Your task to perform on an android device: Clear the cart on target.com. Add macbook pro 15 inch to the cart on target.com Image 0: 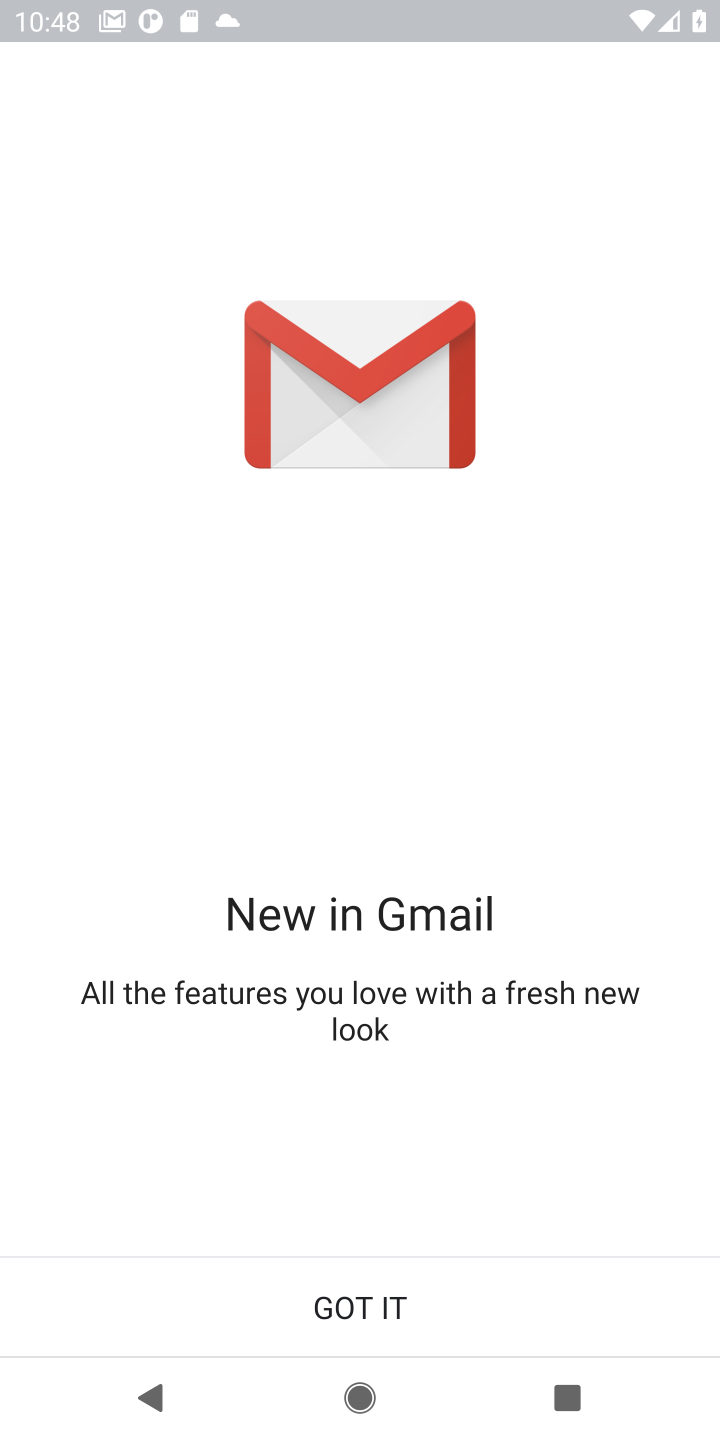
Step 0: press home button
Your task to perform on an android device: Clear the cart on target.com. Add macbook pro 15 inch to the cart on target.com Image 1: 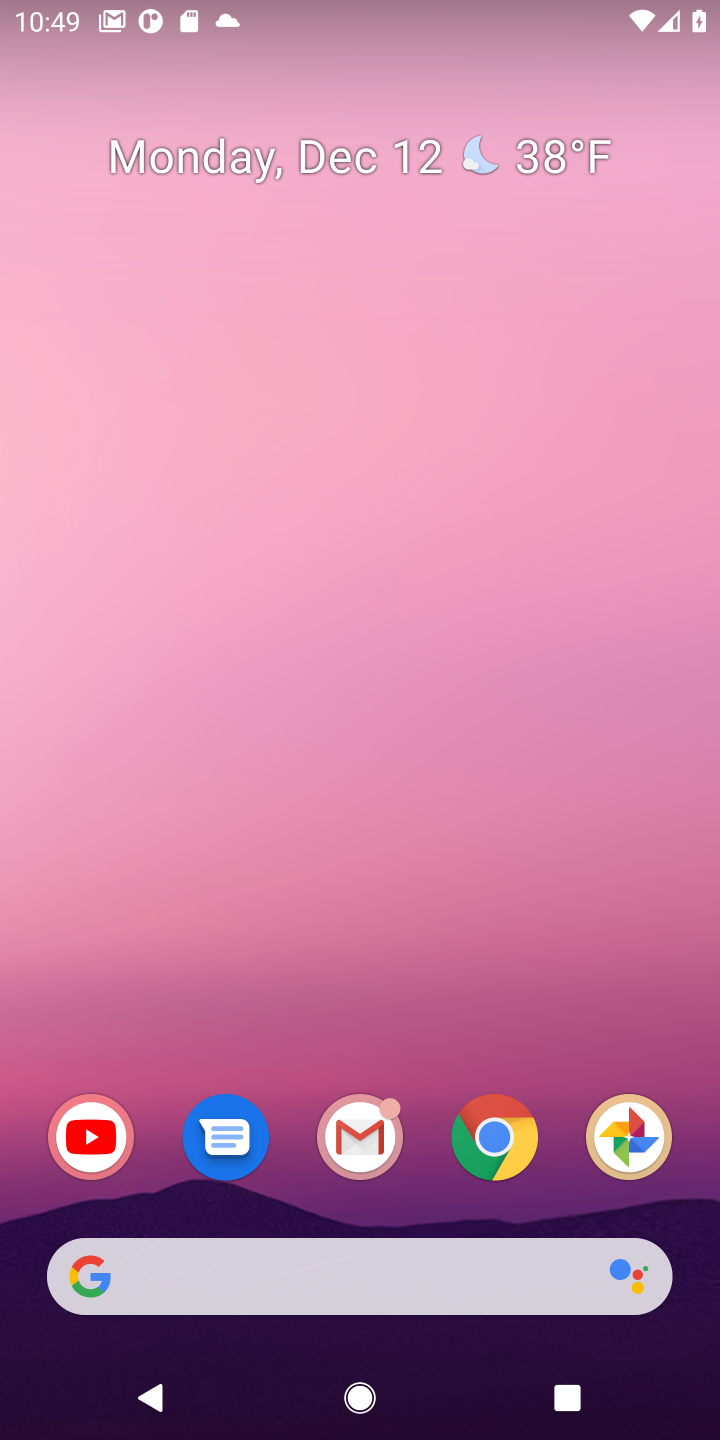
Step 1: click (316, 1256)
Your task to perform on an android device: Clear the cart on target.com. Add macbook pro 15 inch to the cart on target.com Image 2: 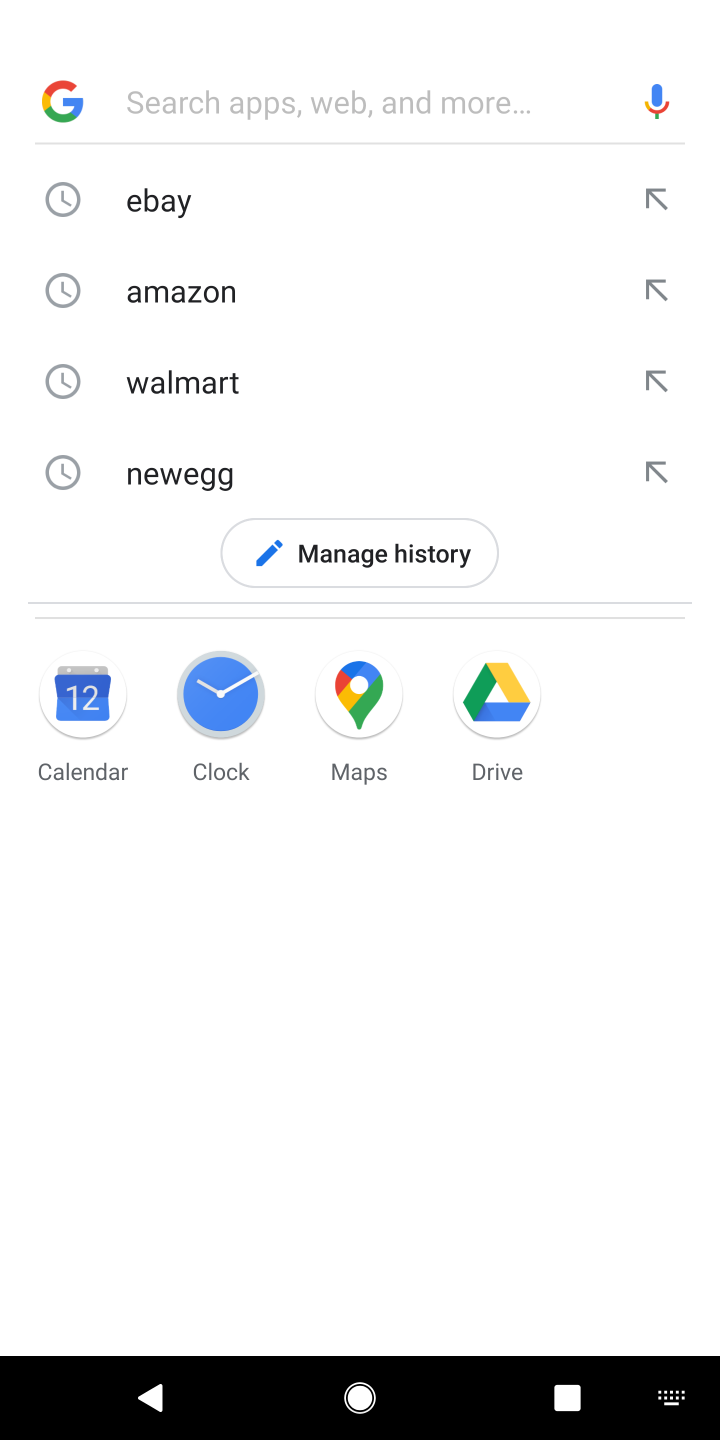
Step 2: type "target"
Your task to perform on an android device: Clear the cart on target.com. Add macbook pro 15 inch to the cart on target.com Image 3: 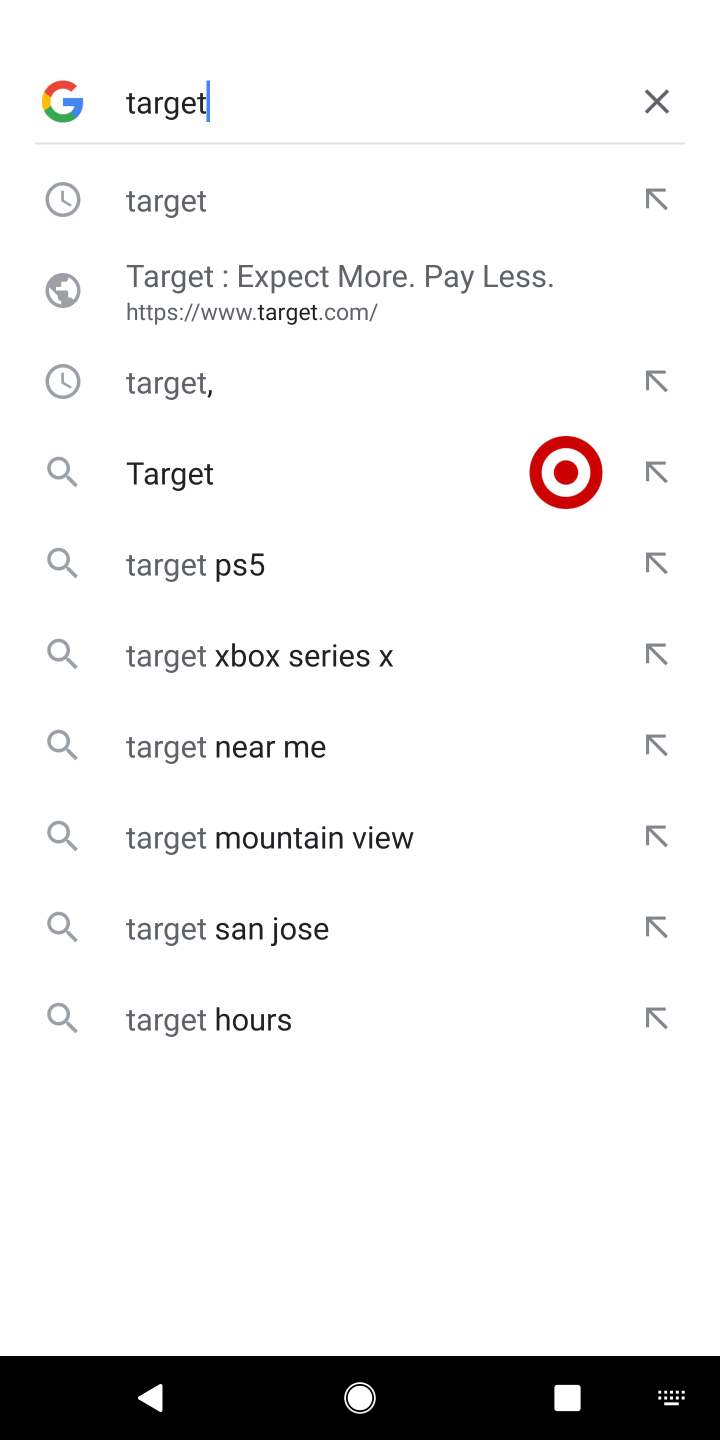
Step 3: click (249, 451)
Your task to perform on an android device: Clear the cart on target.com. Add macbook pro 15 inch to the cart on target.com Image 4: 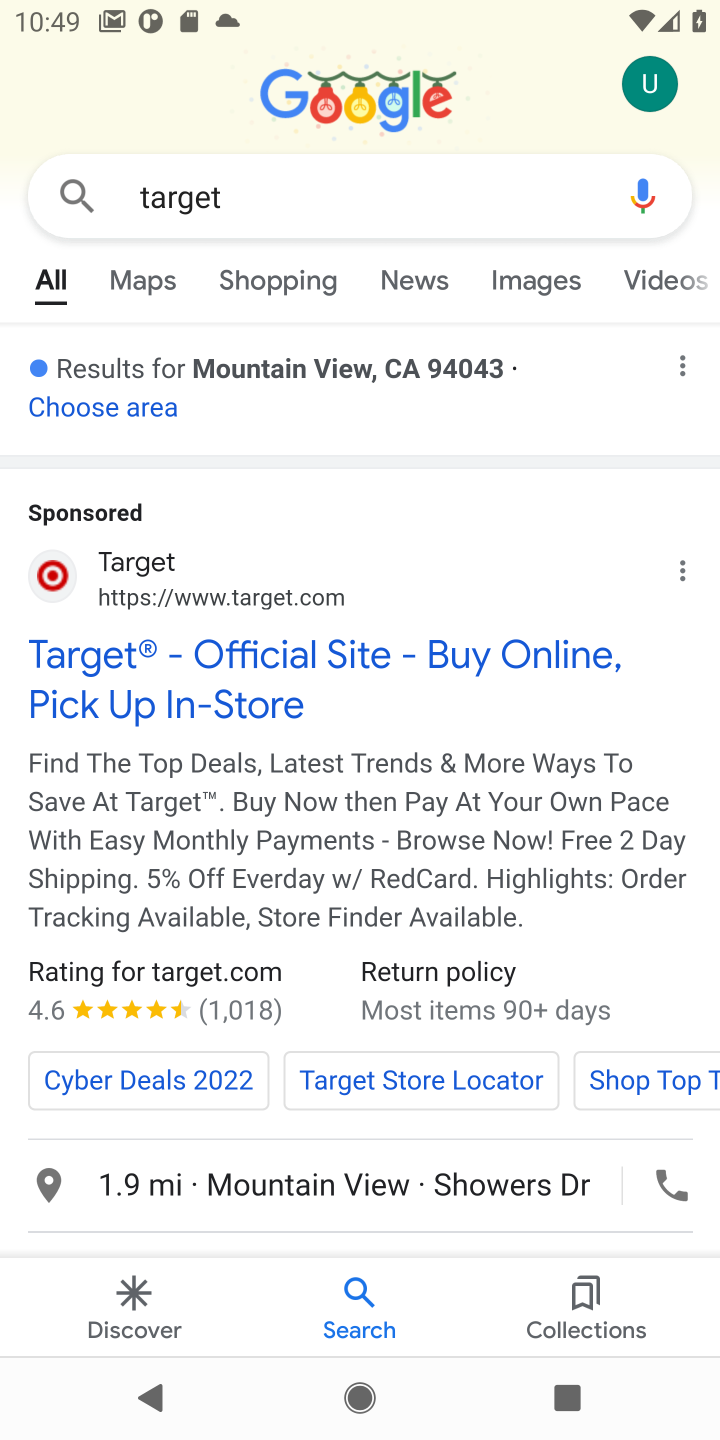
Step 4: click (195, 726)
Your task to perform on an android device: Clear the cart on target.com. Add macbook pro 15 inch to the cart on target.com Image 5: 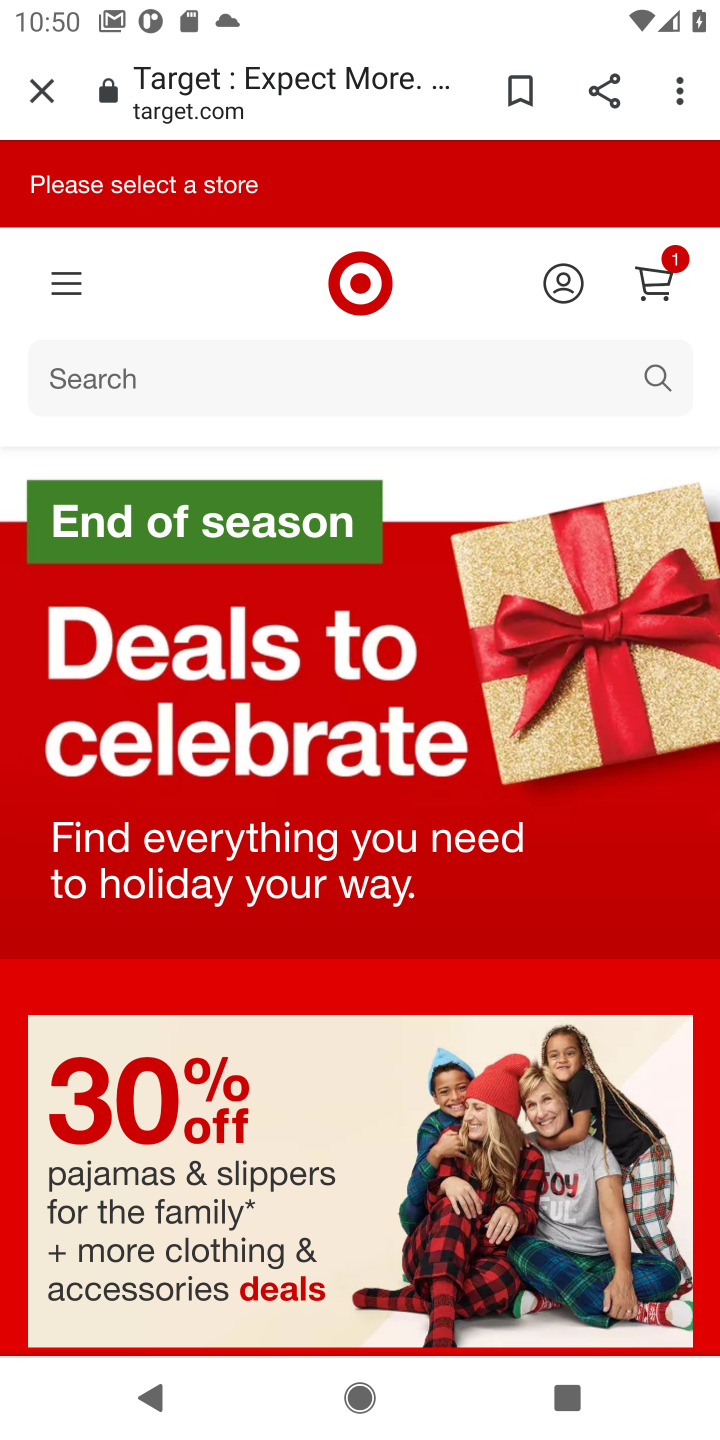
Step 5: click (158, 376)
Your task to perform on an android device: Clear the cart on target.com. Add macbook pro 15 inch to the cart on target.com Image 6: 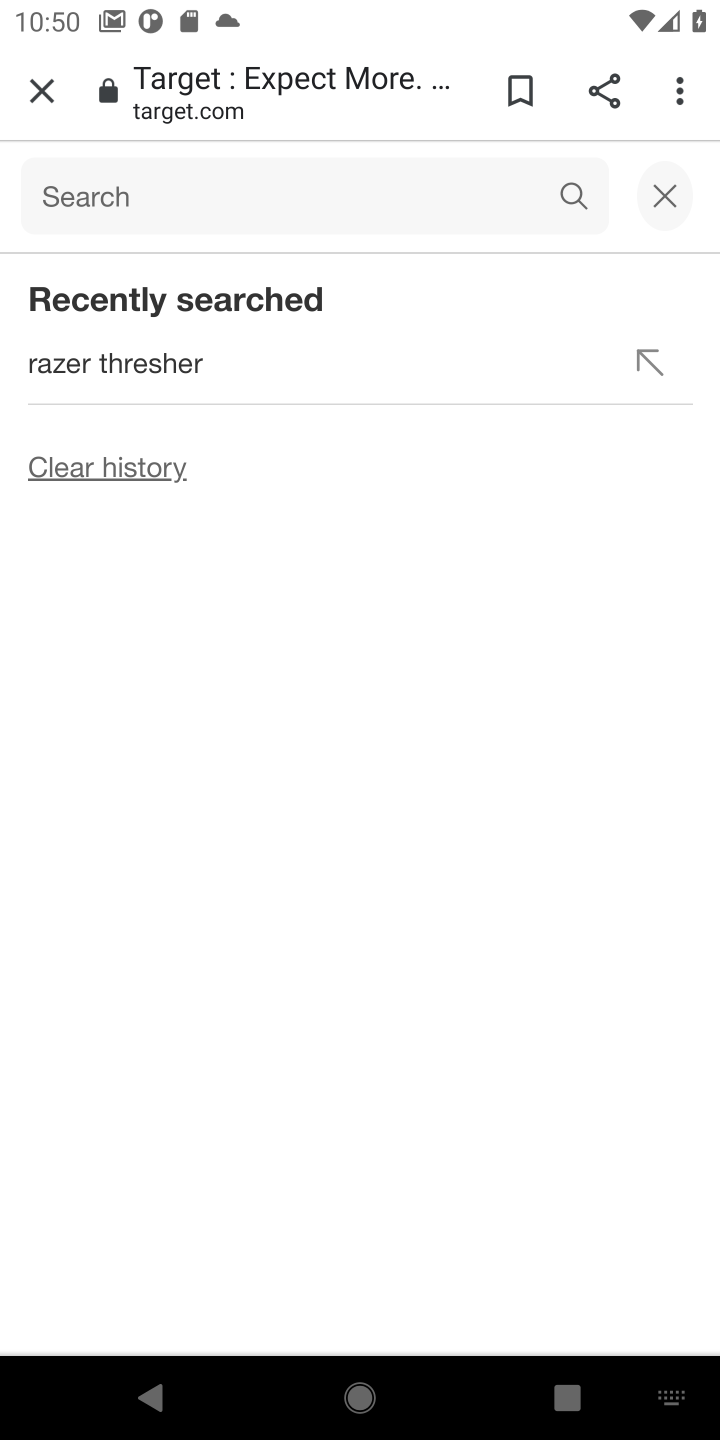
Step 6: type "macbook pro"
Your task to perform on an android device: Clear the cart on target.com. Add macbook pro 15 inch to the cart on target.com Image 7: 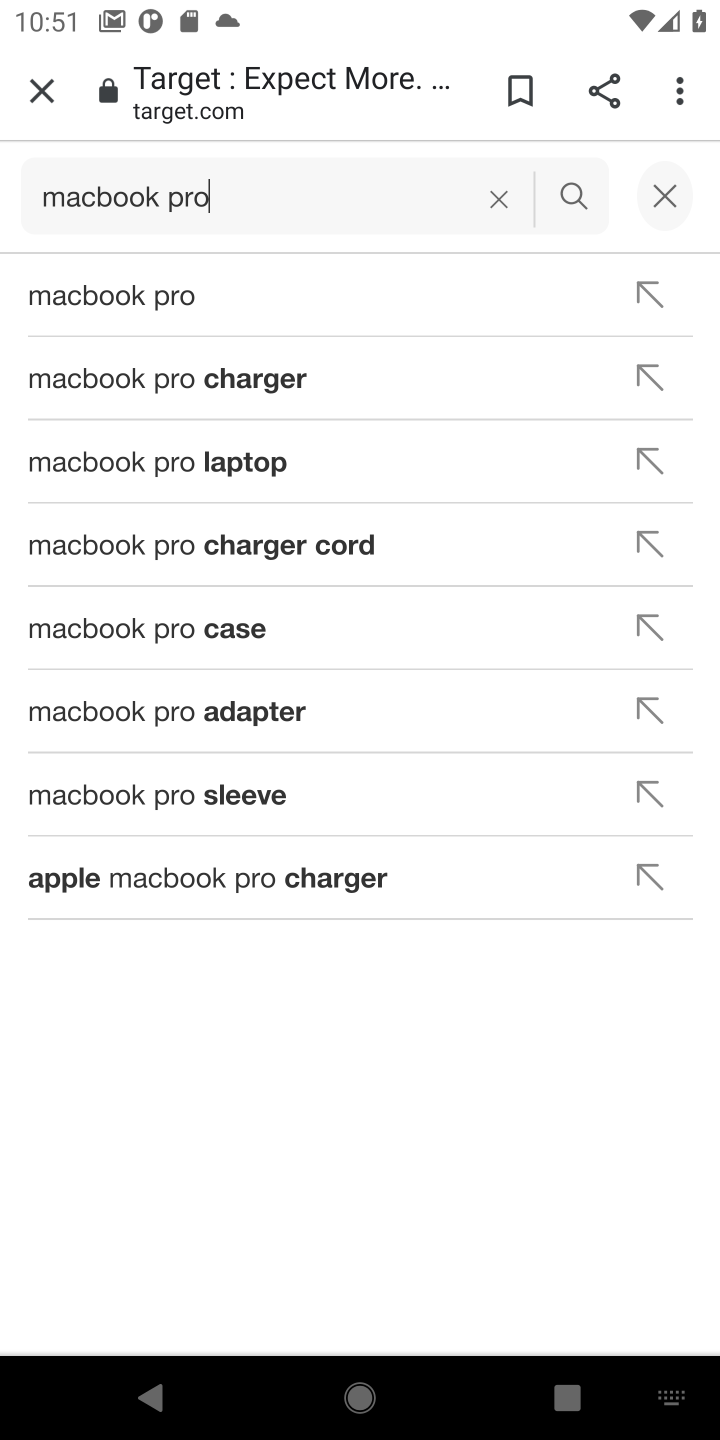
Step 7: click (252, 312)
Your task to perform on an android device: Clear the cart on target.com. Add macbook pro 15 inch to the cart on target.com Image 8: 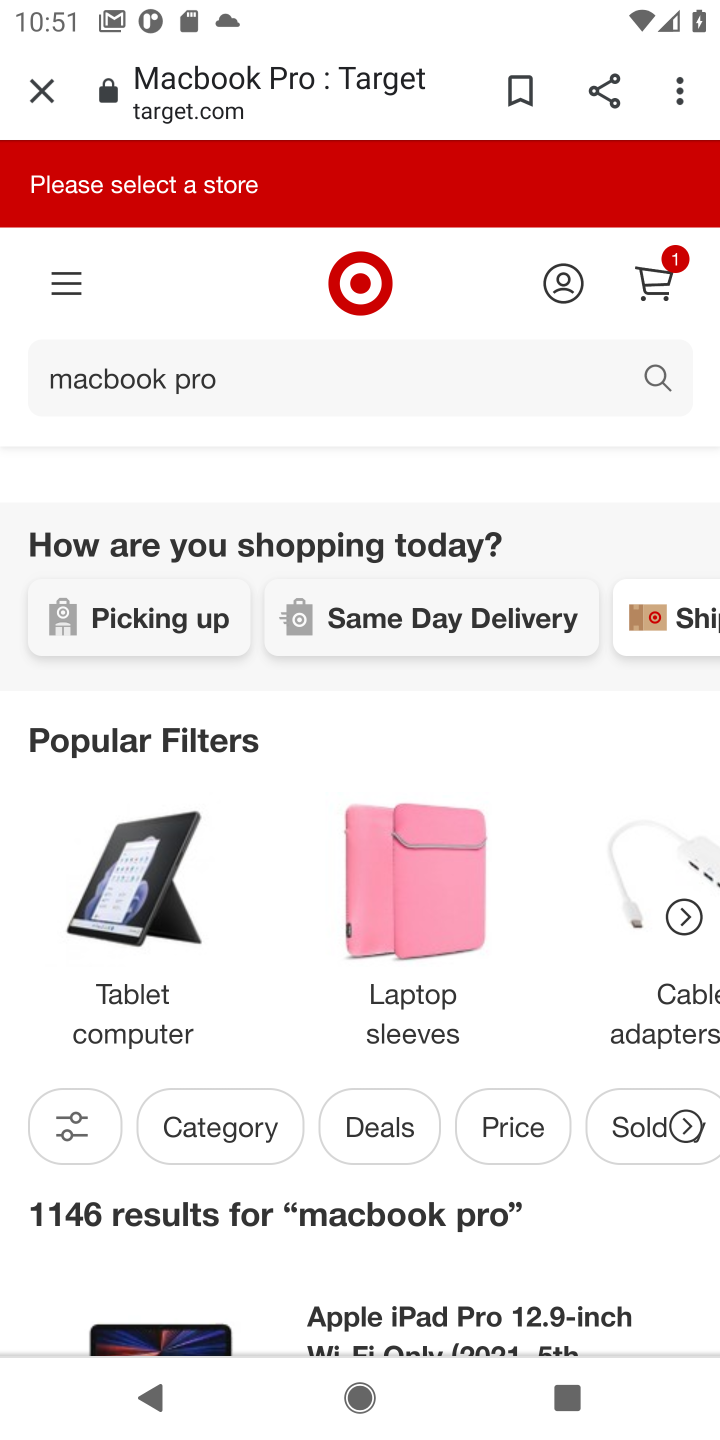
Step 8: click (648, 384)
Your task to perform on an android device: Clear the cart on target.com. Add macbook pro 15 inch to the cart on target.com Image 9: 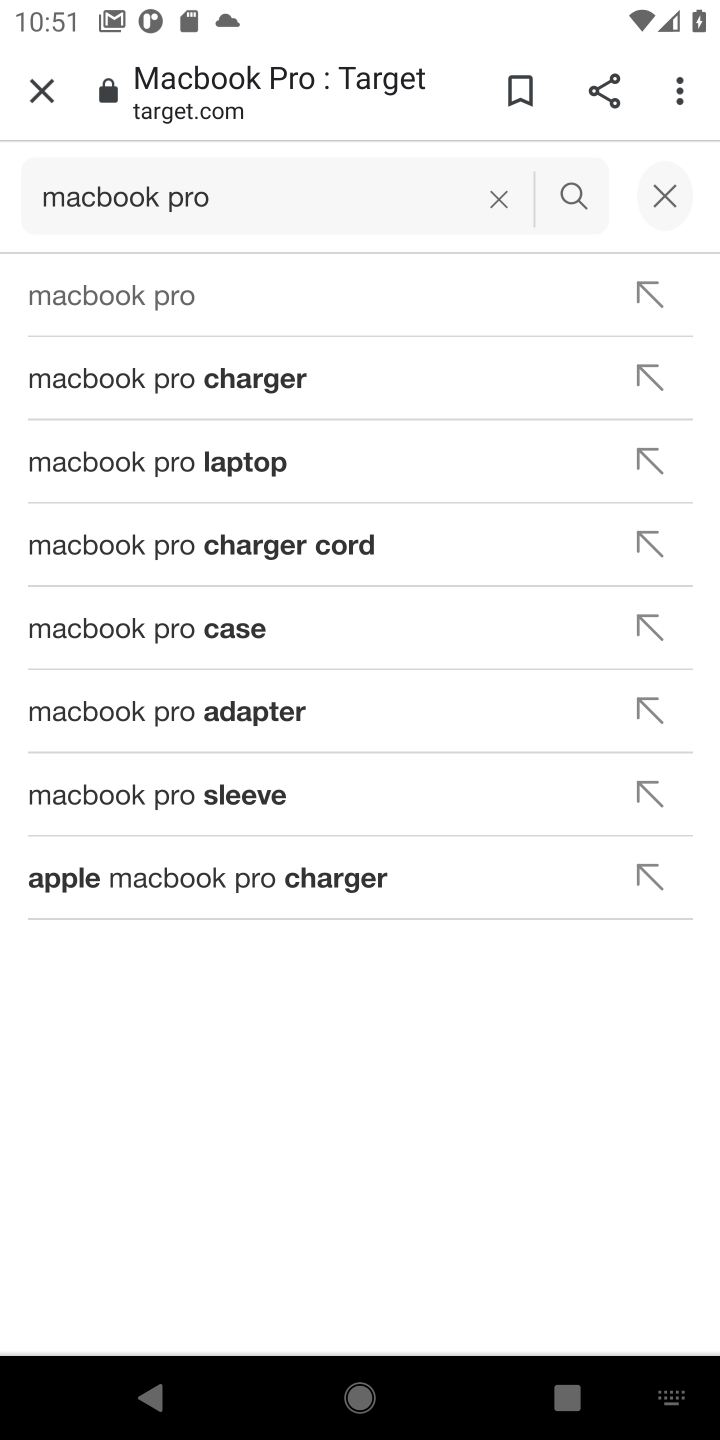
Step 9: click (193, 279)
Your task to perform on an android device: Clear the cart on target.com. Add macbook pro 15 inch to the cart on target.com Image 10: 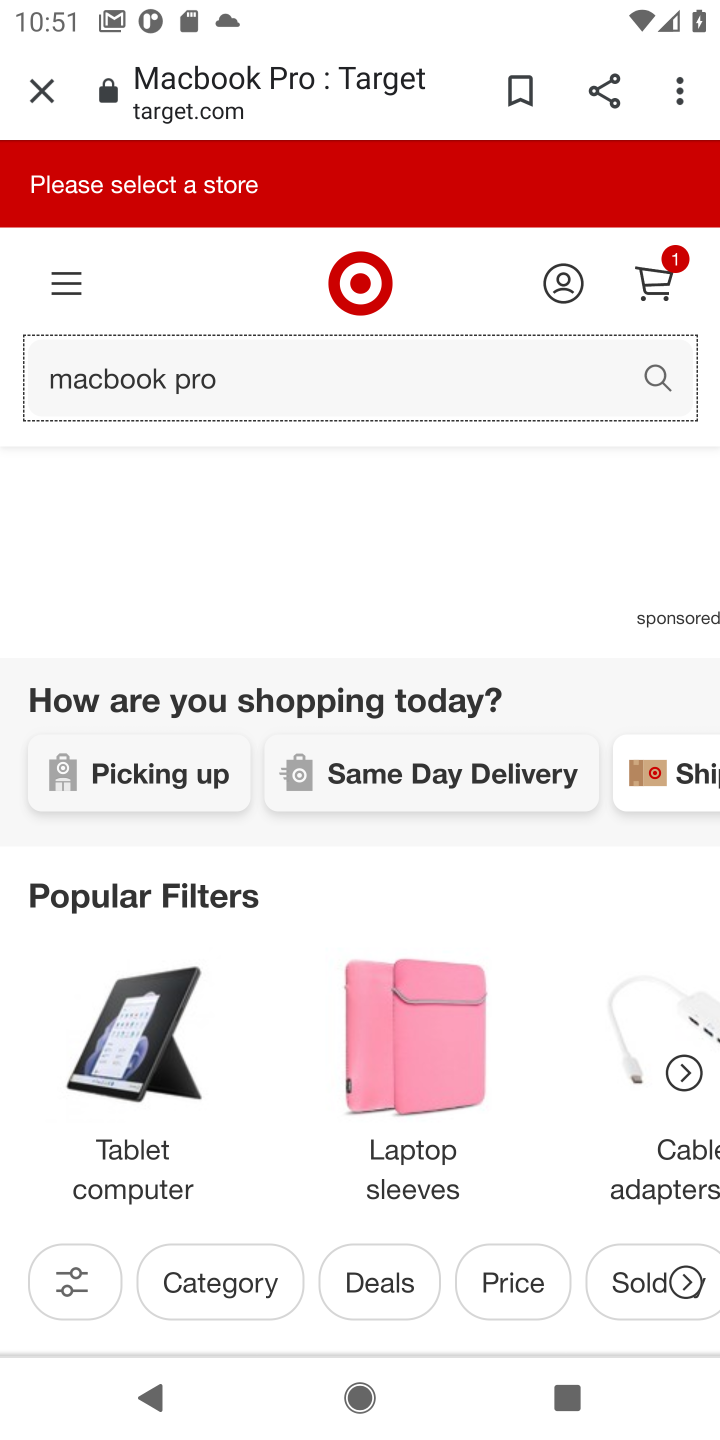
Step 10: drag from (267, 1140) to (288, 389)
Your task to perform on an android device: Clear the cart on target.com. Add macbook pro 15 inch to the cart on target.com Image 11: 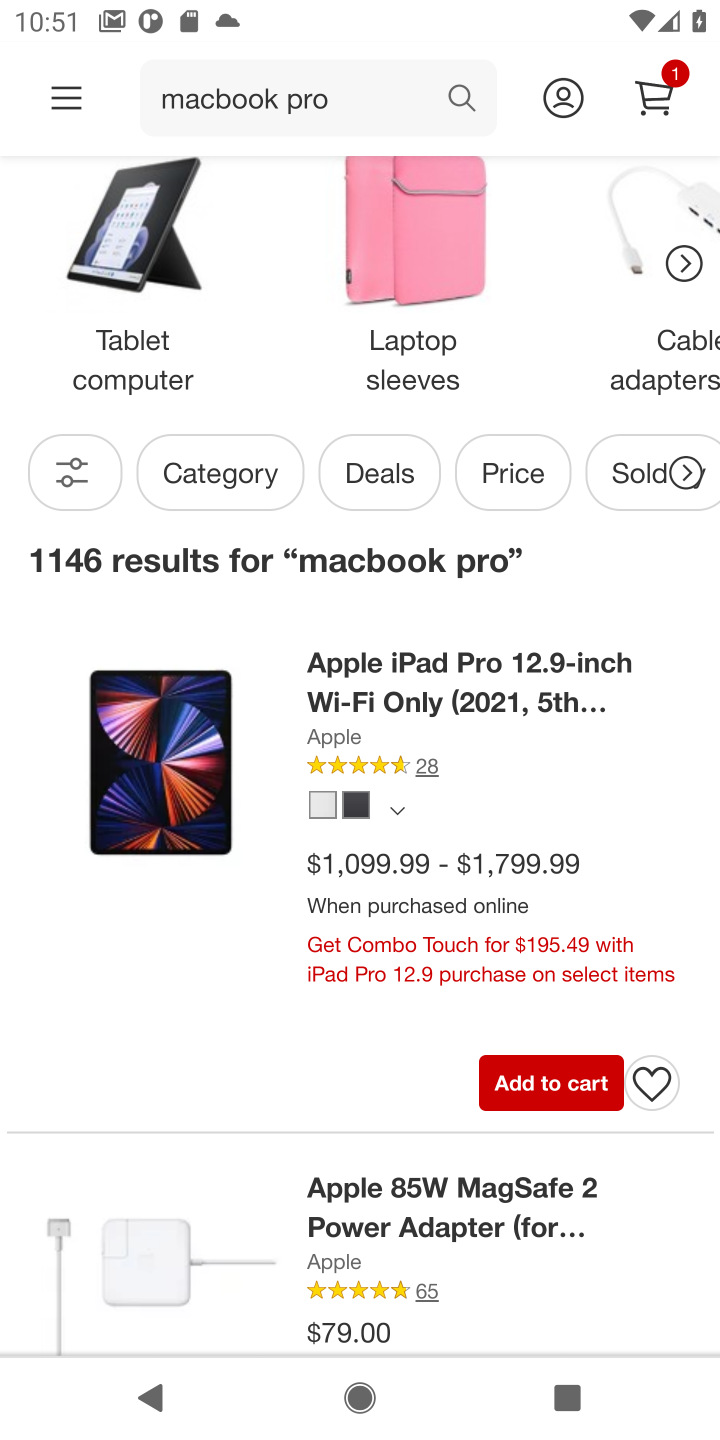
Step 11: click (531, 1102)
Your task to perform on an android device: Clear the cart on target.com. Add macbook pro 15 inch to the cart on target.com Image 12: 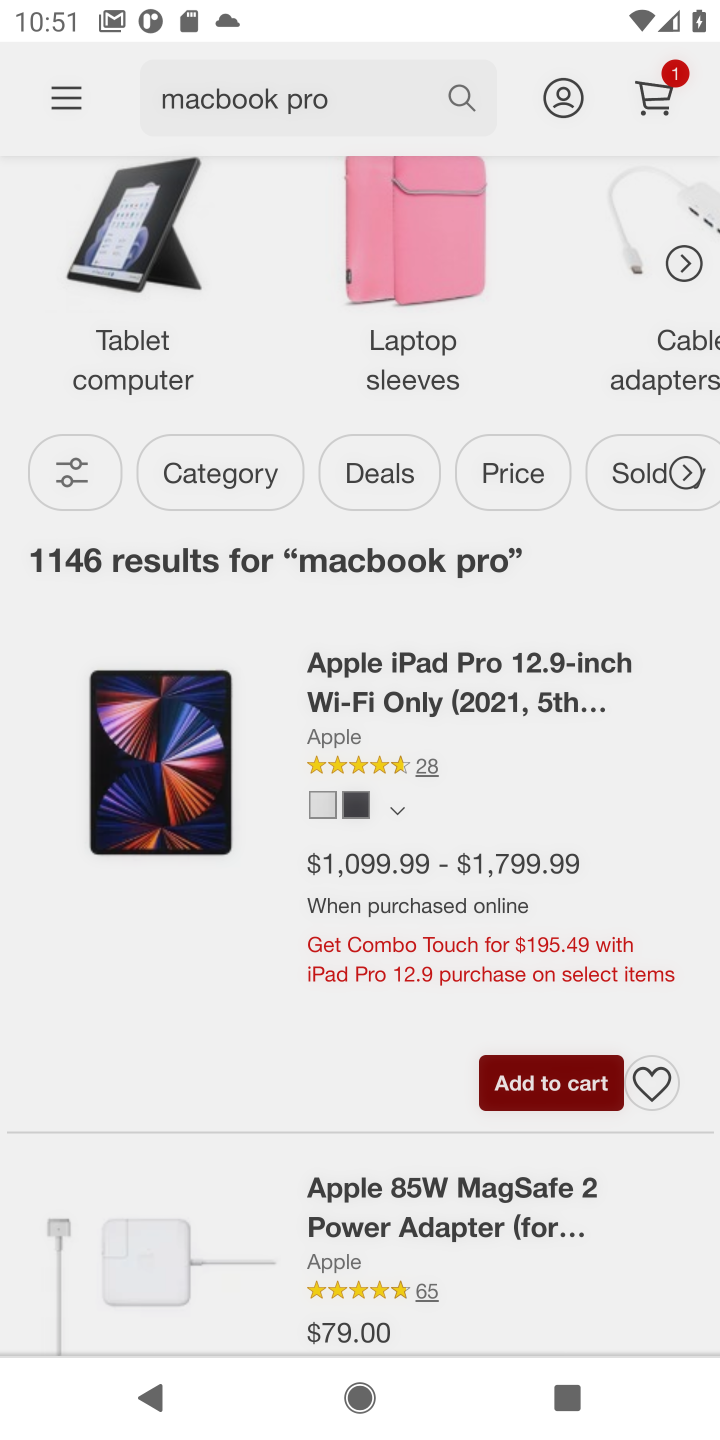
Step 12: task complete